Your task to perform on an android device: show emergency info Image 0: 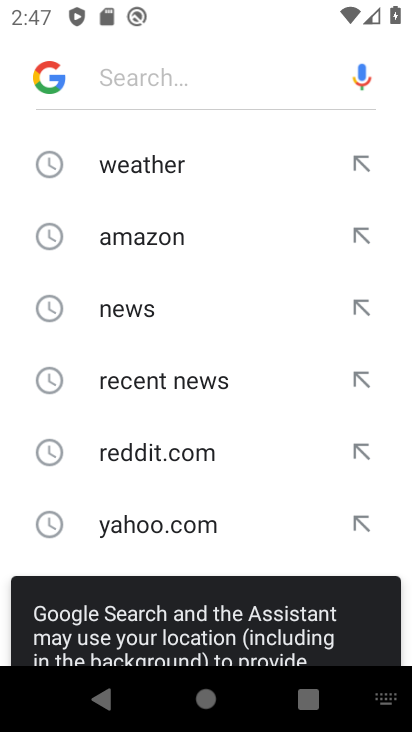
Step 0: press home button
Your task to perform on an android device: show emergency info Image 1: 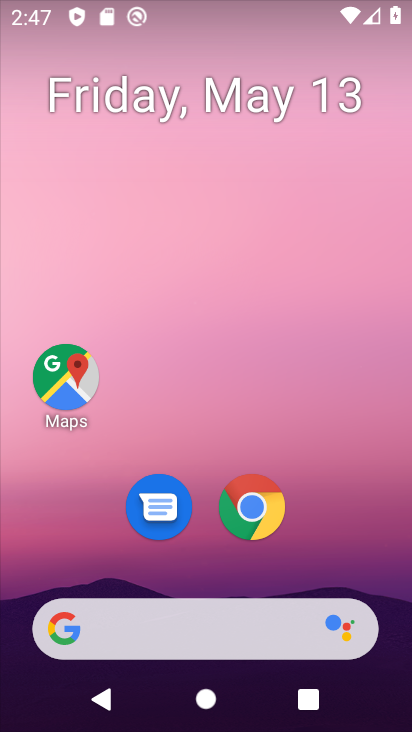
Step 1: drag from (317, 552) to (339, 16)
Your task to perform on an android device: show emergency info Image 2: 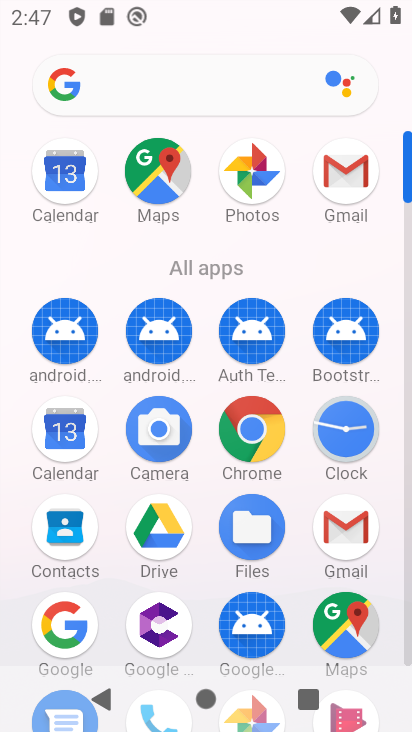
Step 2: drag from (292, 613) to (302, 76)
Your task to perform on an android device: show emergency info Image 3: 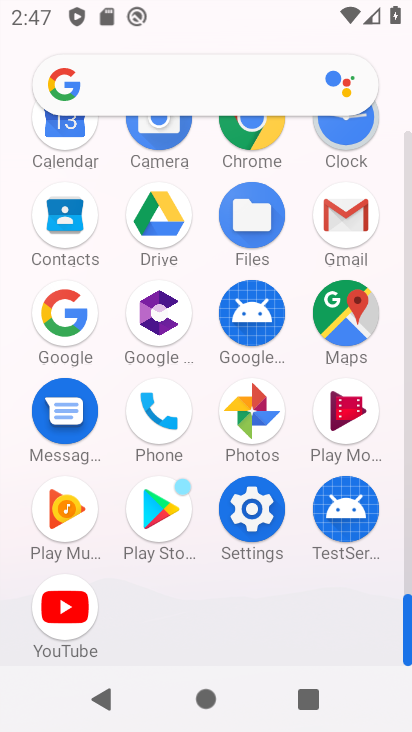
Step 3: click (256, 526)
Your task to perform on an android device: show emergency info Image 4: 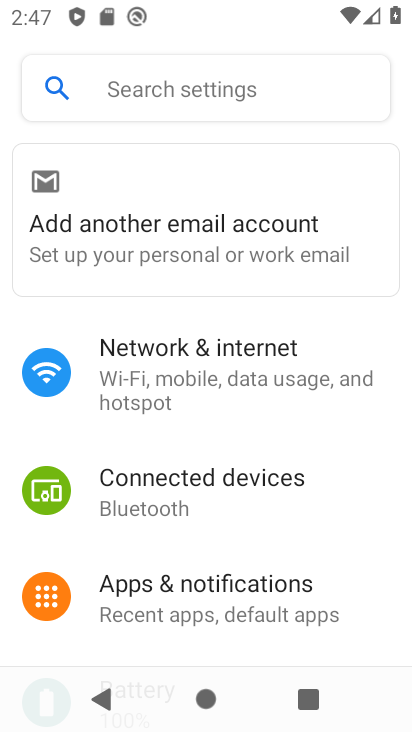
Step 4: drag from (217, 602) to (178, 8)
Your task to perform on an android device: show emergency info Image 5: 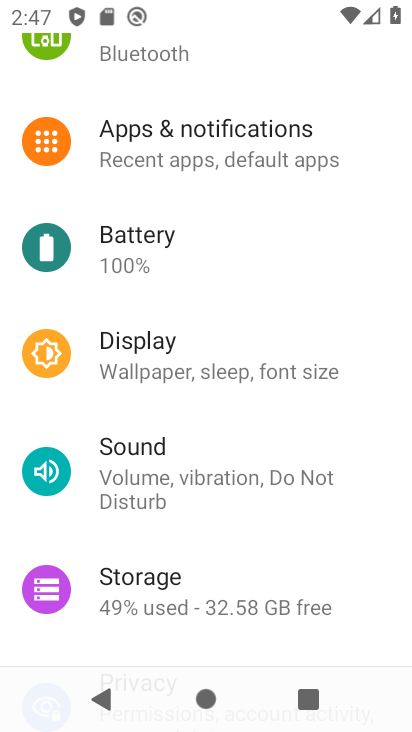
Step 5: drag from (211, 598) to (206, 47)
Your task to perform on an android device: show emergency info Image 6: 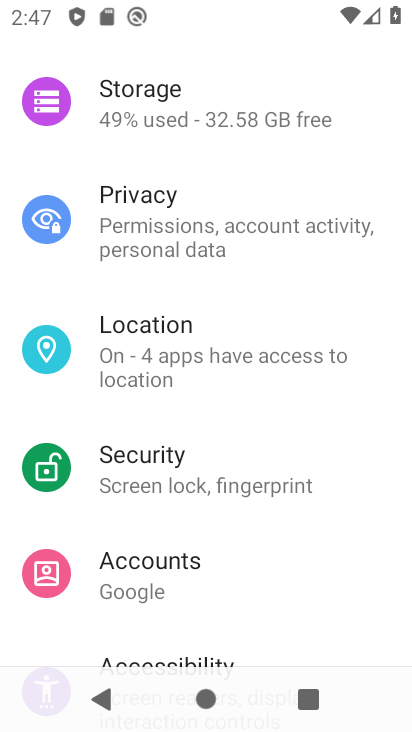
Step 6: drag from (167, 601) to (181, 117)
Your task to perform on an android device: show emergency info Image 7: 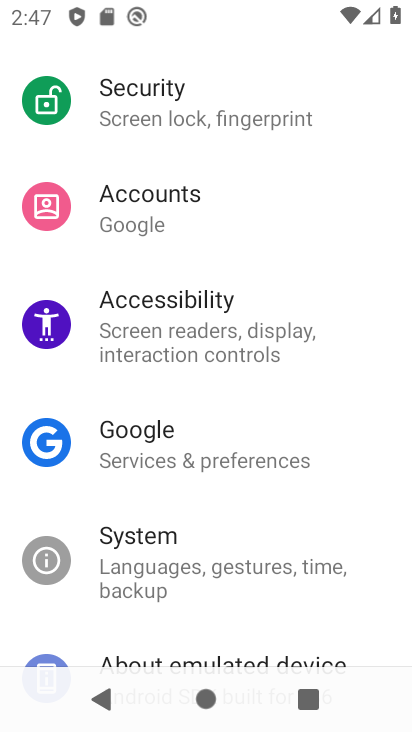
Step 7: drag from (212, 511) to (355, 8)
Your task to perform on an android device: show emergency info Image 8: 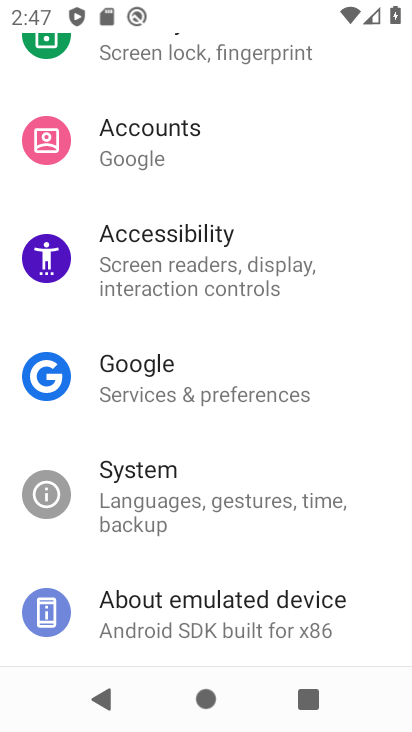
Step 8: click (149, 596)
Your task to perform on an android device: show emergency info Image 9: 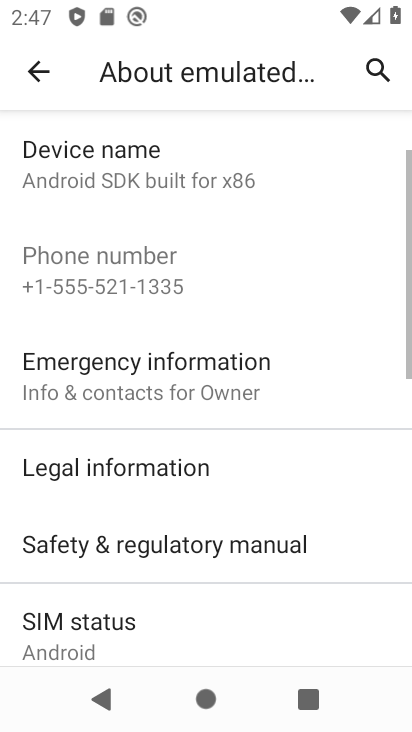
Step 9: drag from (153, 533) to (164, 432)
Your task to perform on an android device: show emergency info Image 10: 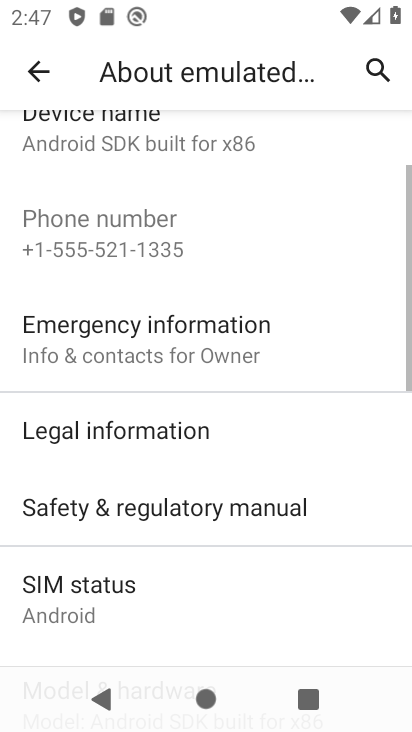
Step 10: click (150, 353)
Your task to perform on an android device: show emergency info Image 11: 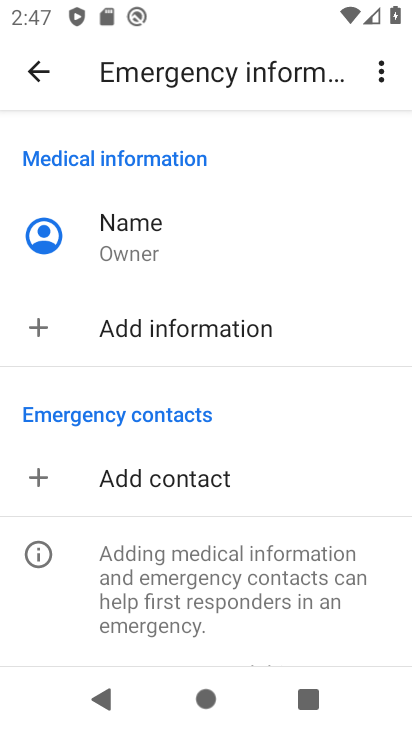
Step 11: task complete